Your task to perform on an android device: check out phone information Image 0: 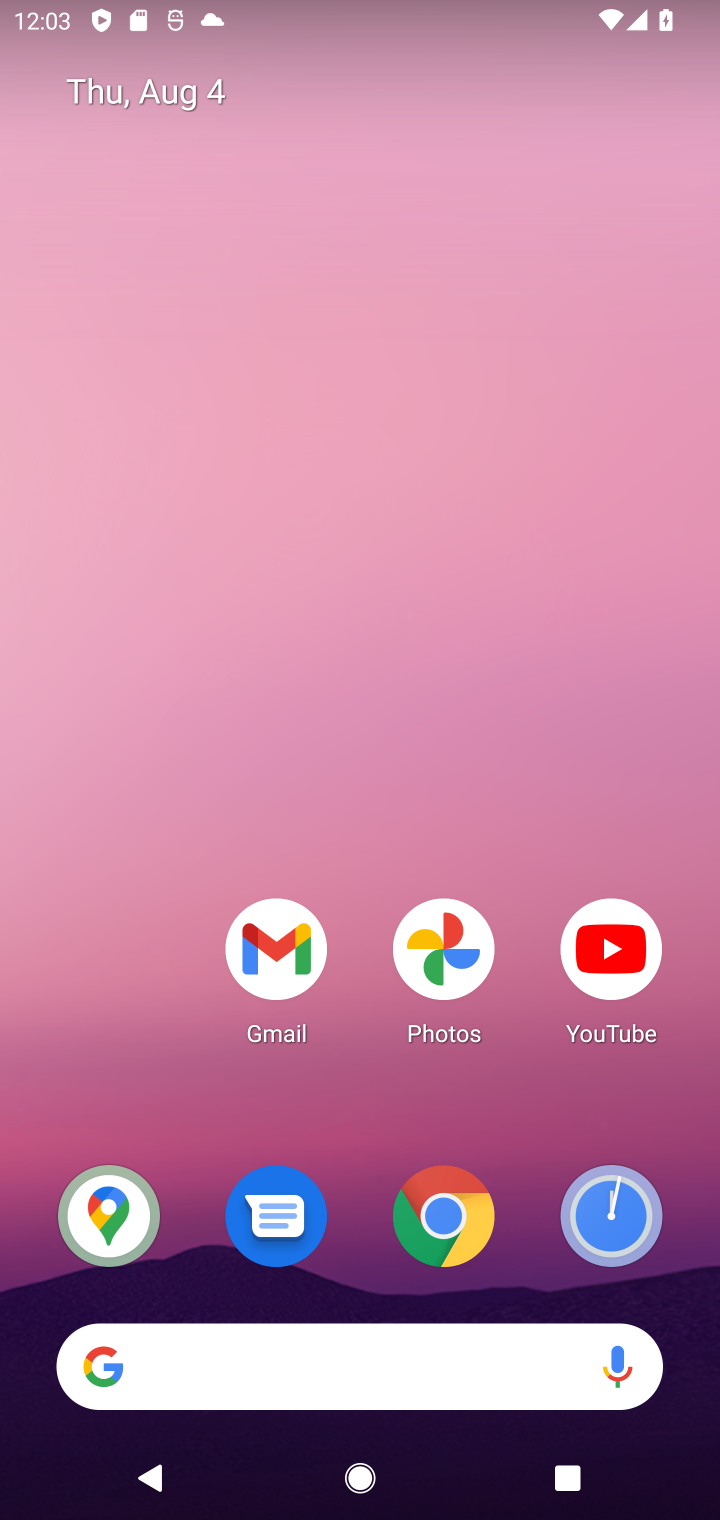
Step 0: drag from (291, 1378) to (447, 224)
Your task to perform on an android device: check out phone information Image 1: 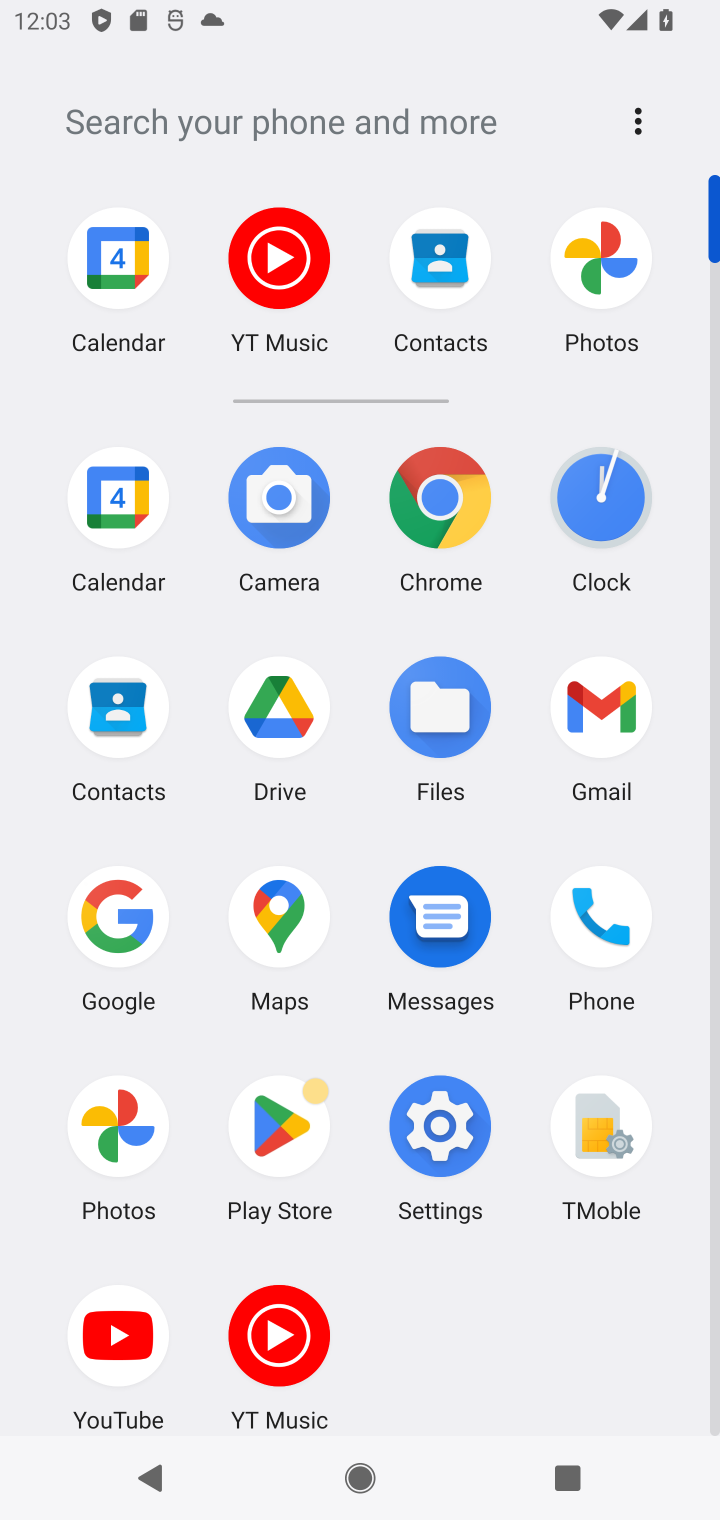
Step 1: click (435, 1123)
Your task to perform on an android device: check out phone information Image 2: 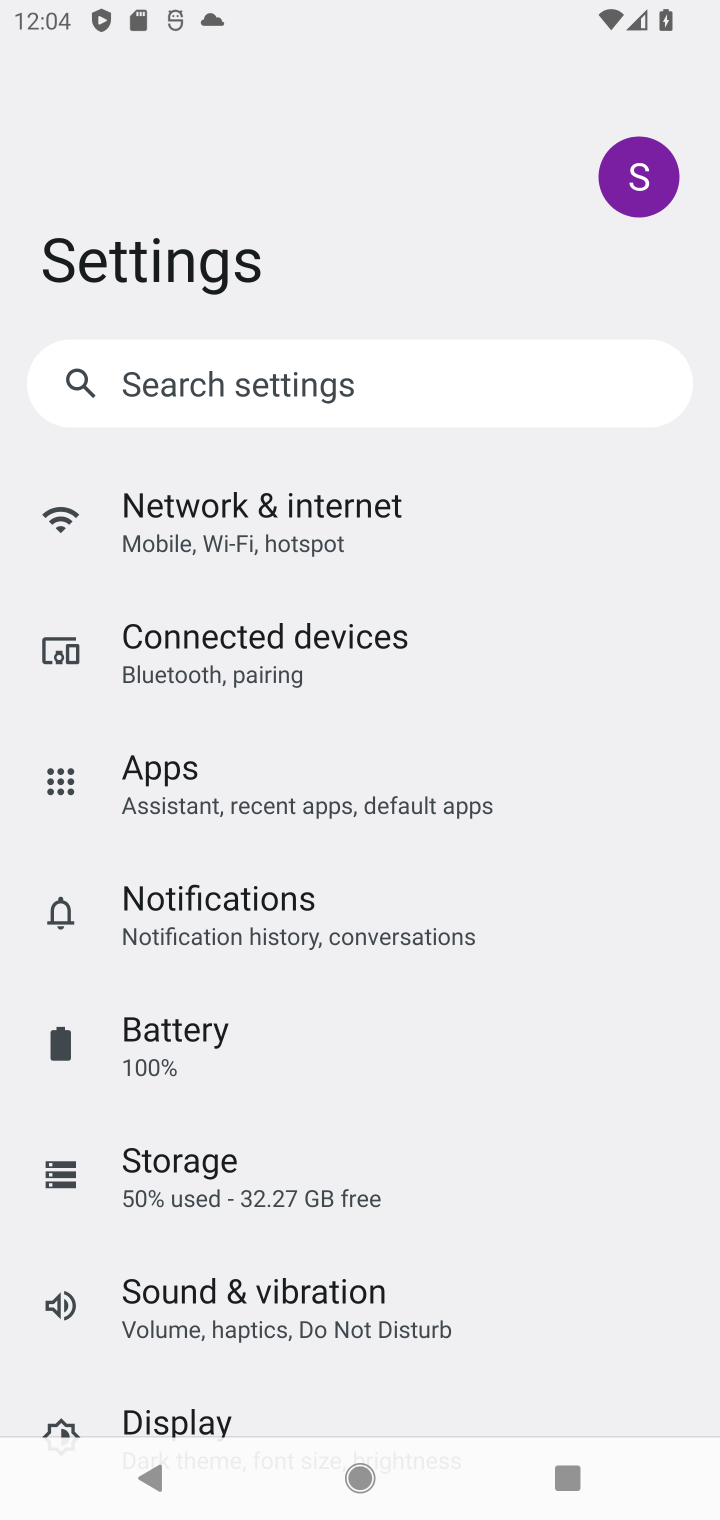
Step 2: drag from (382, 1245) to (377, 639)
Your task to perform on an android device: check out phone information Image 3: 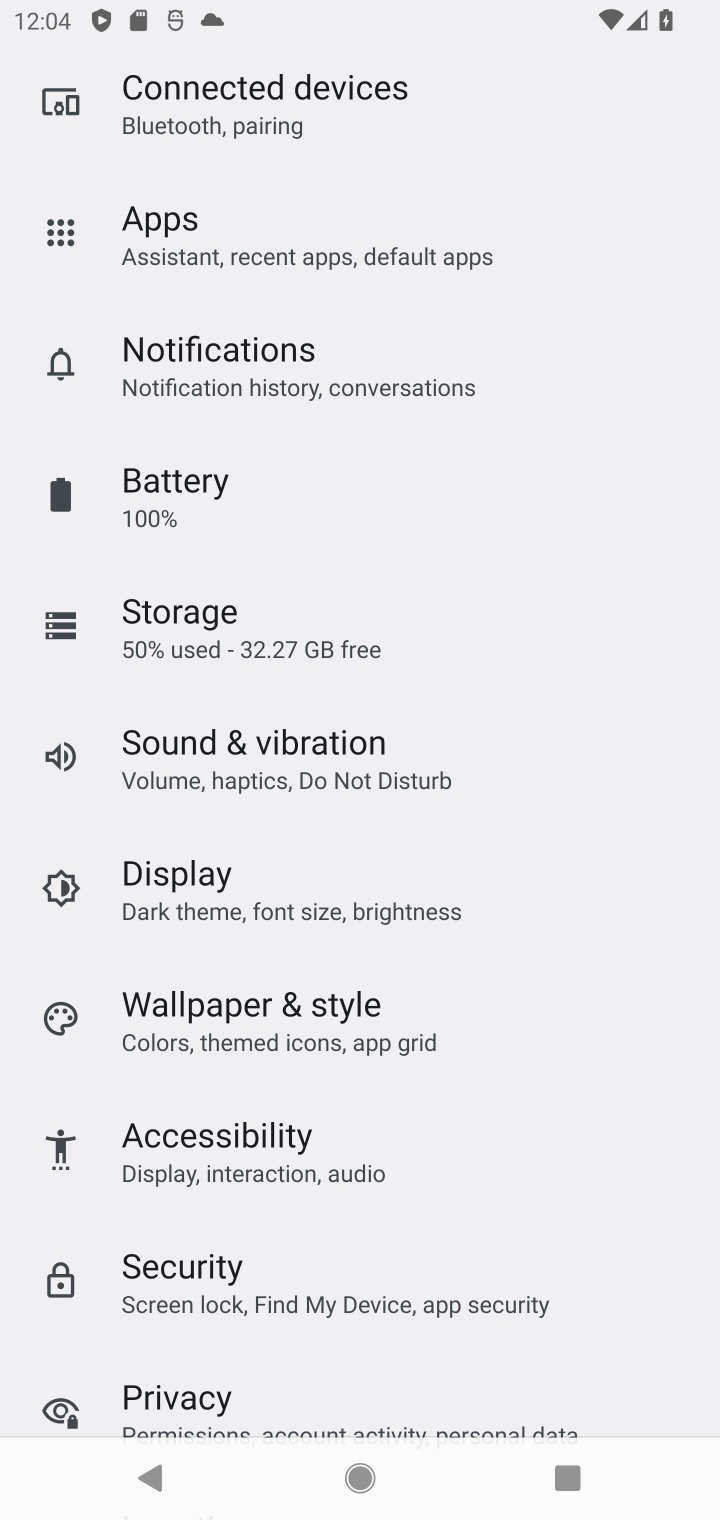
Step 3: drag from (319, 1133) to (537, 773)
Your task to perform on an android device: check out phone information Image 4: 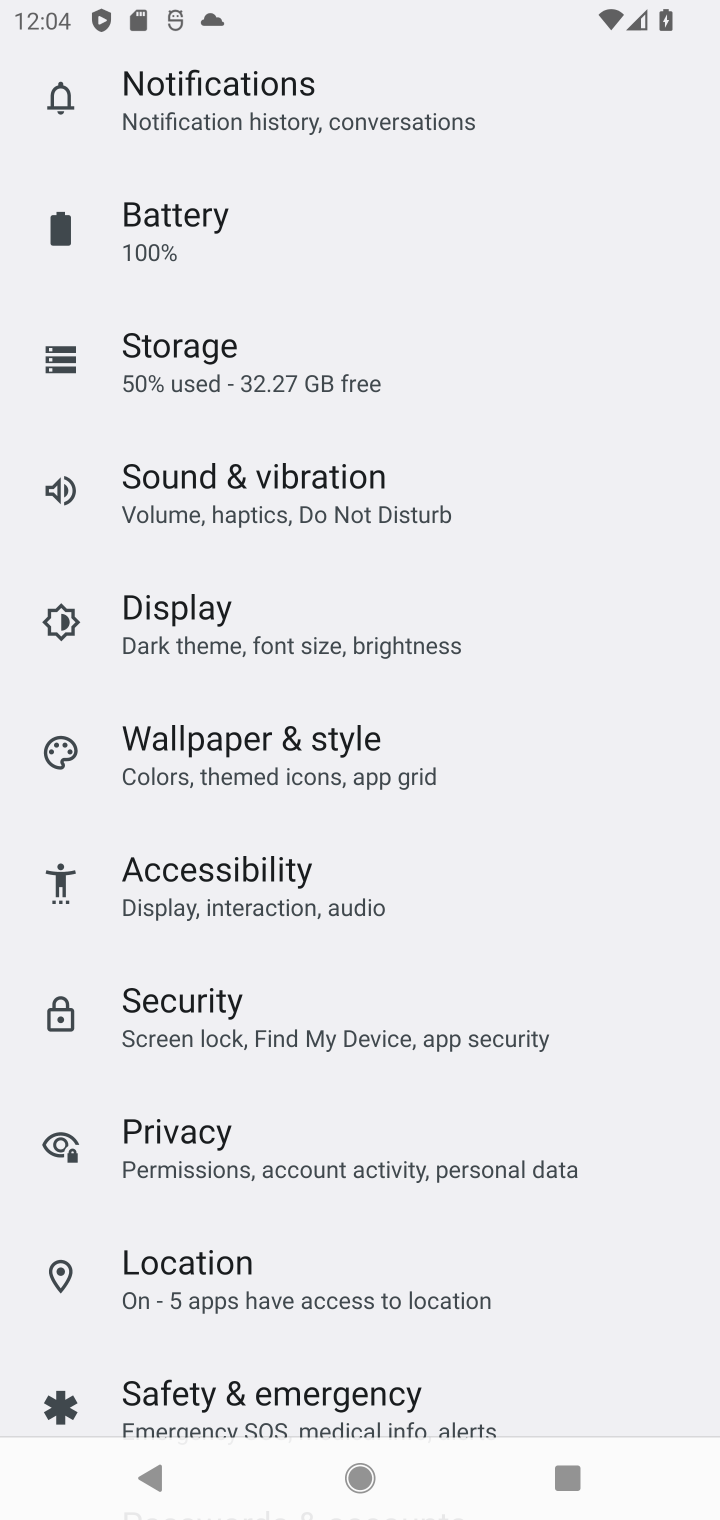
Step 4: drag from (259, 1082) to (381, 814)
Your task to perform on an android device: check out phone information Image 5: 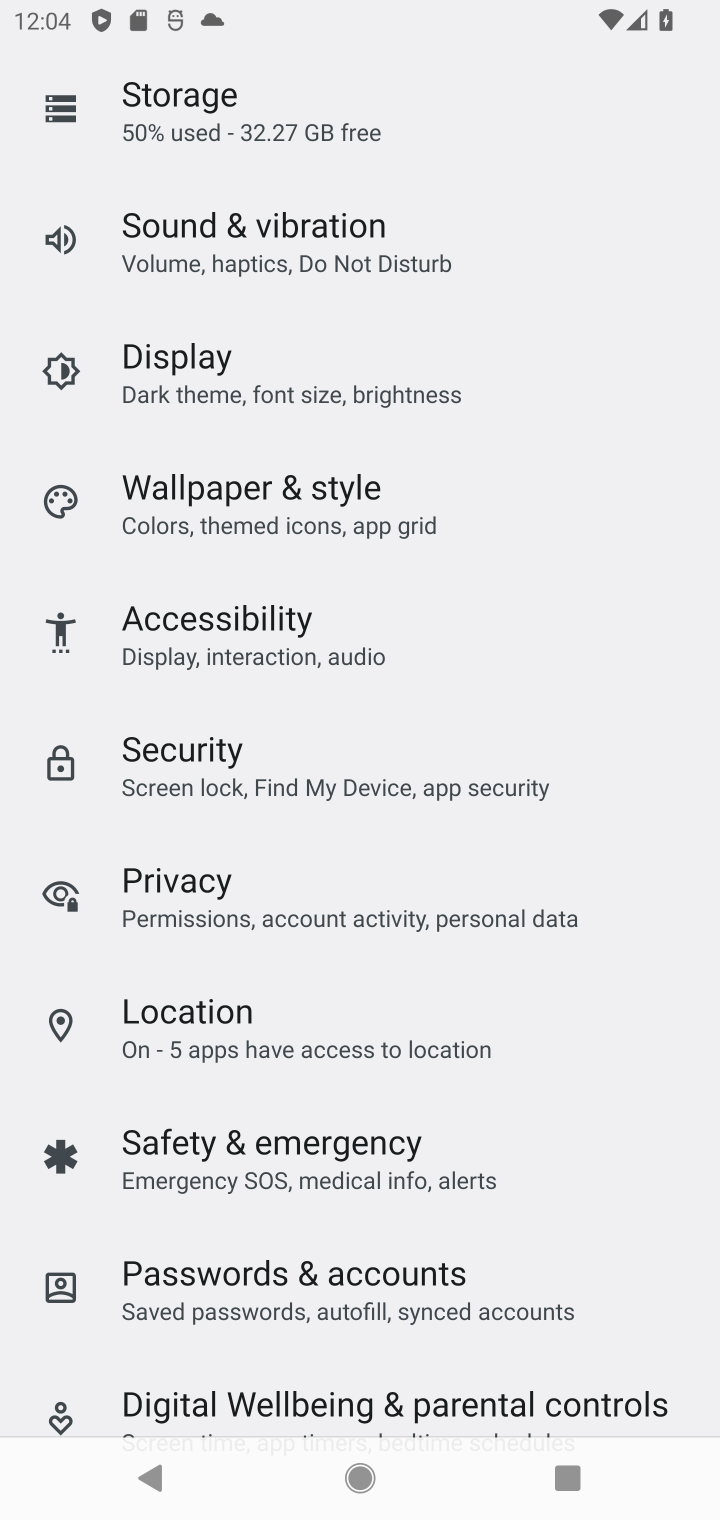
Step 5: drag from (214, 1087) to (337, 820)
Your task to perform on an android device: check out phone information Image 6: 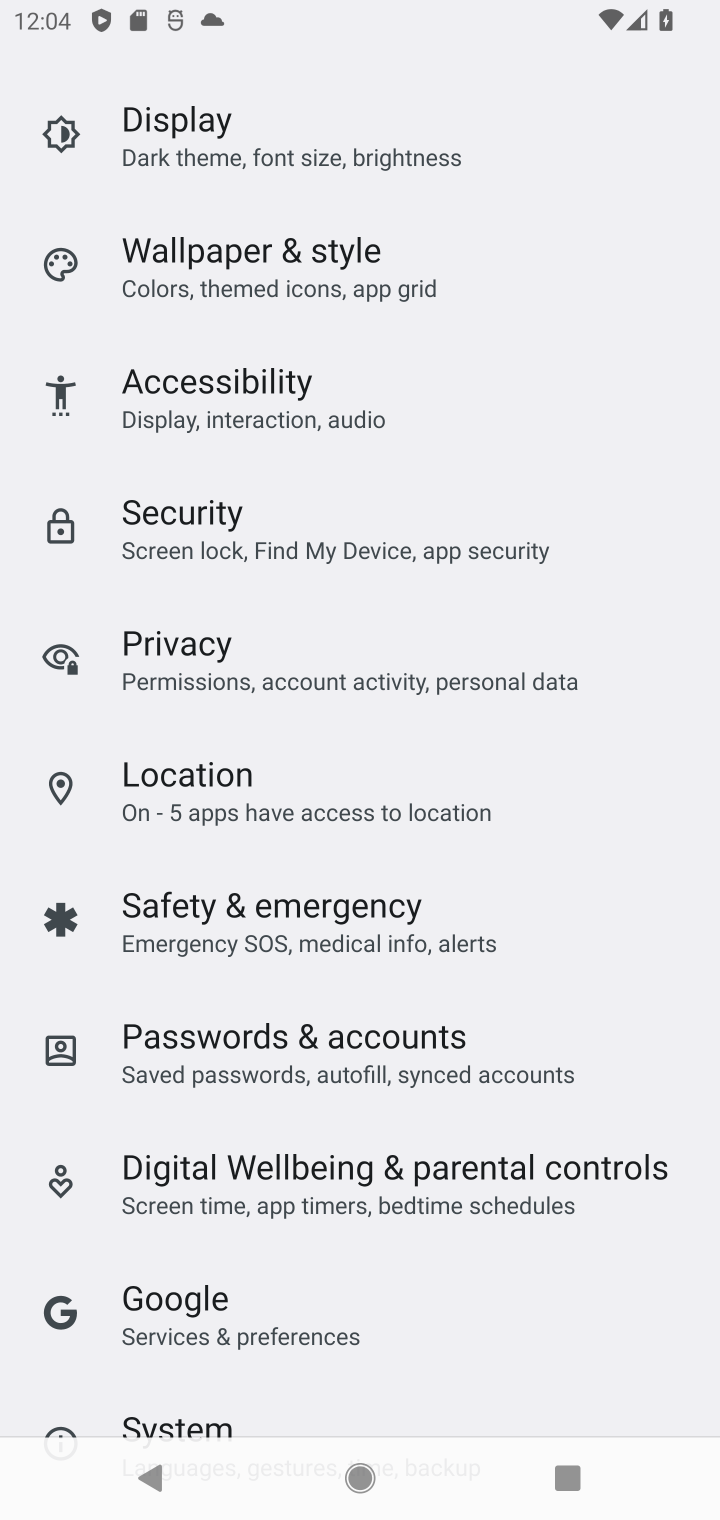
Step 6: drag from (156, 1001) to (339, 674)
Your task to perform on an android device: check out phone information Image 7: 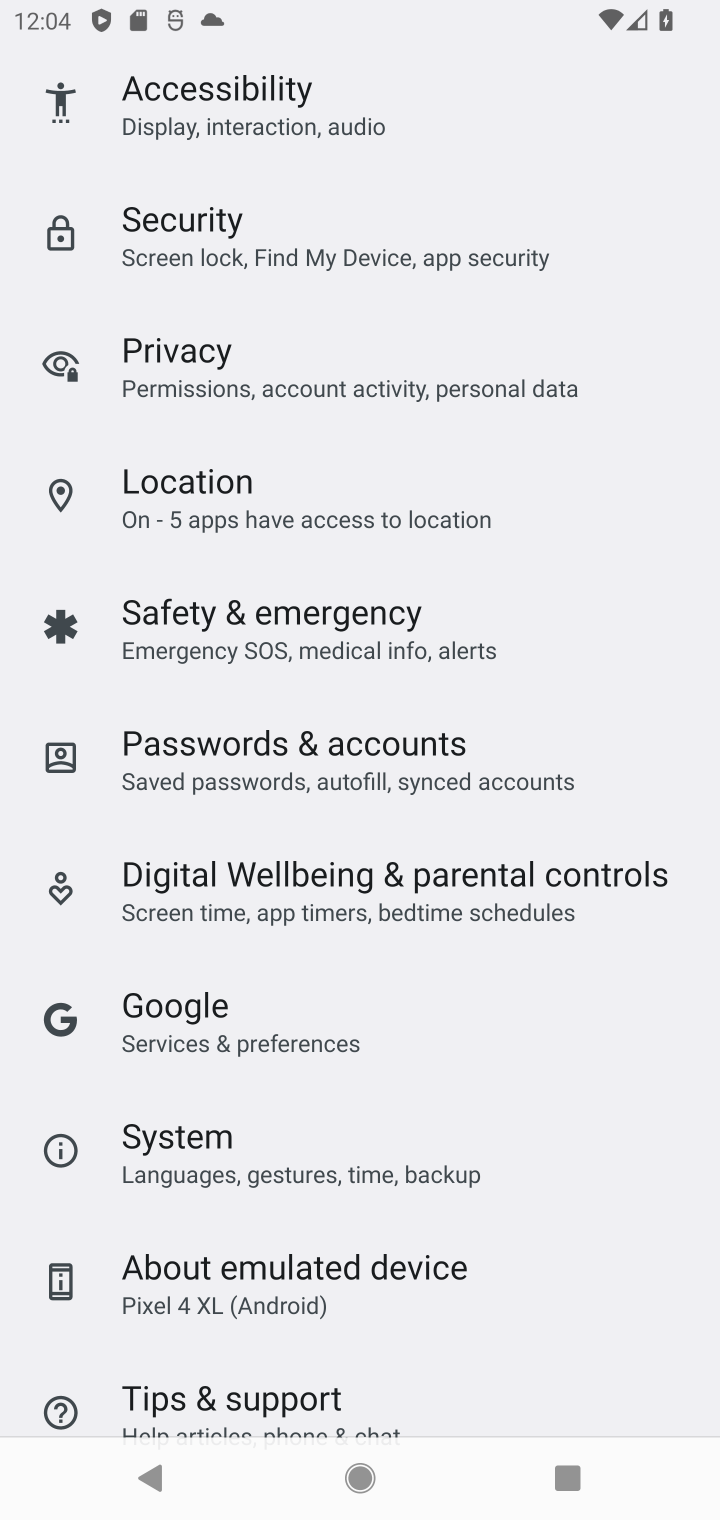
Step 7: drag from (180, 828) to (309, 612)
Your task to perform on an android device: check out phone information Image 8: 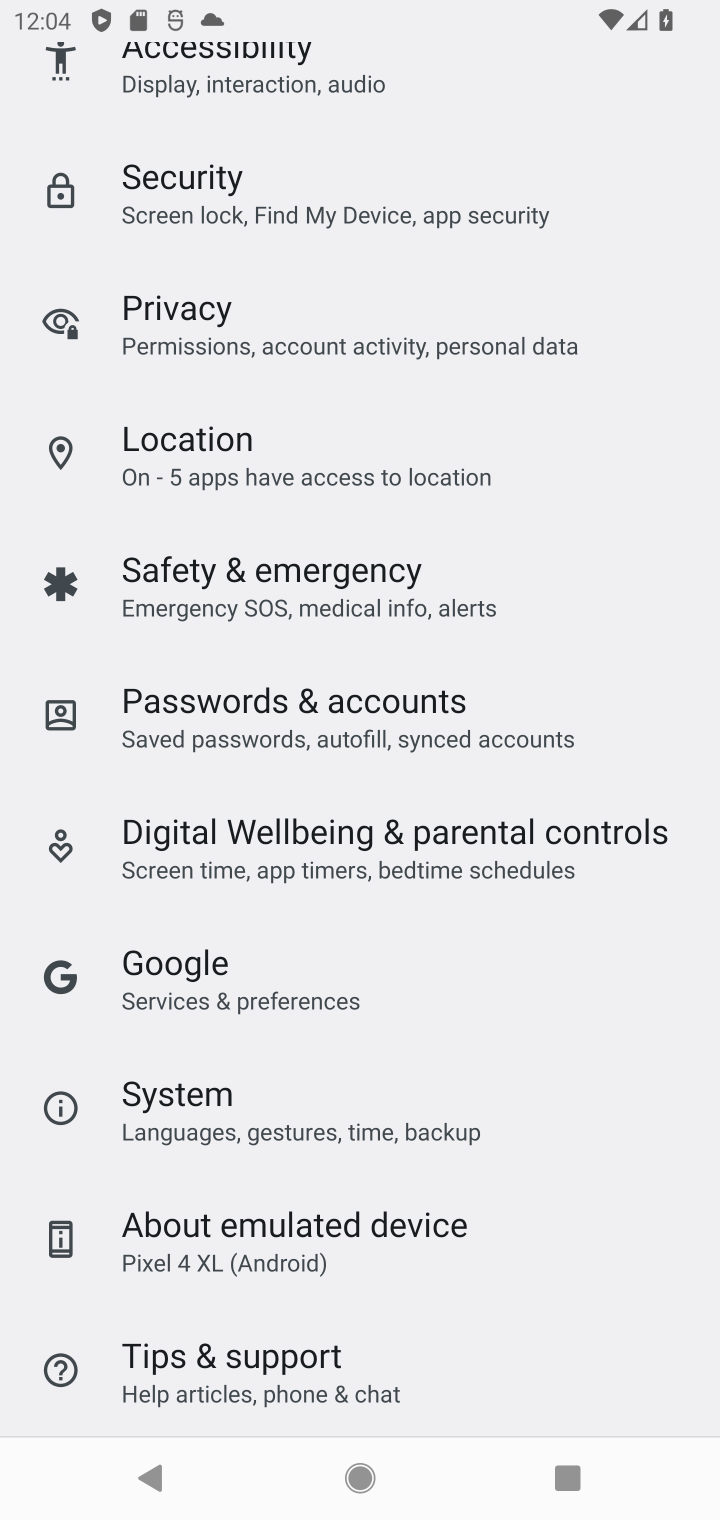
Step 8: drag from (249, 943) to (343, 516)
Your task to perform on an android device: check out phone information Image 9: 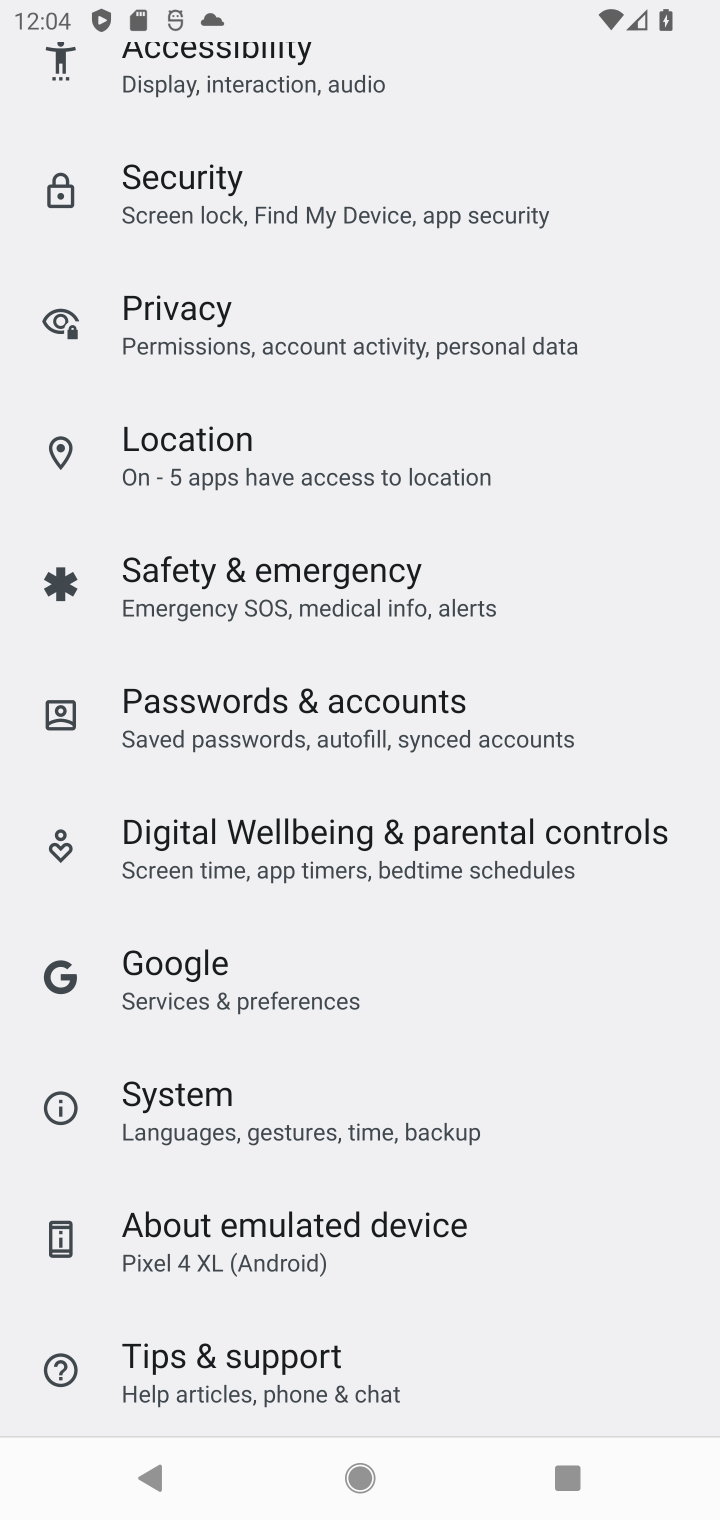
Step 9: drag from (319, 956) to (437, 724)
Your task to perform on an android device: check out phone information Image 10: 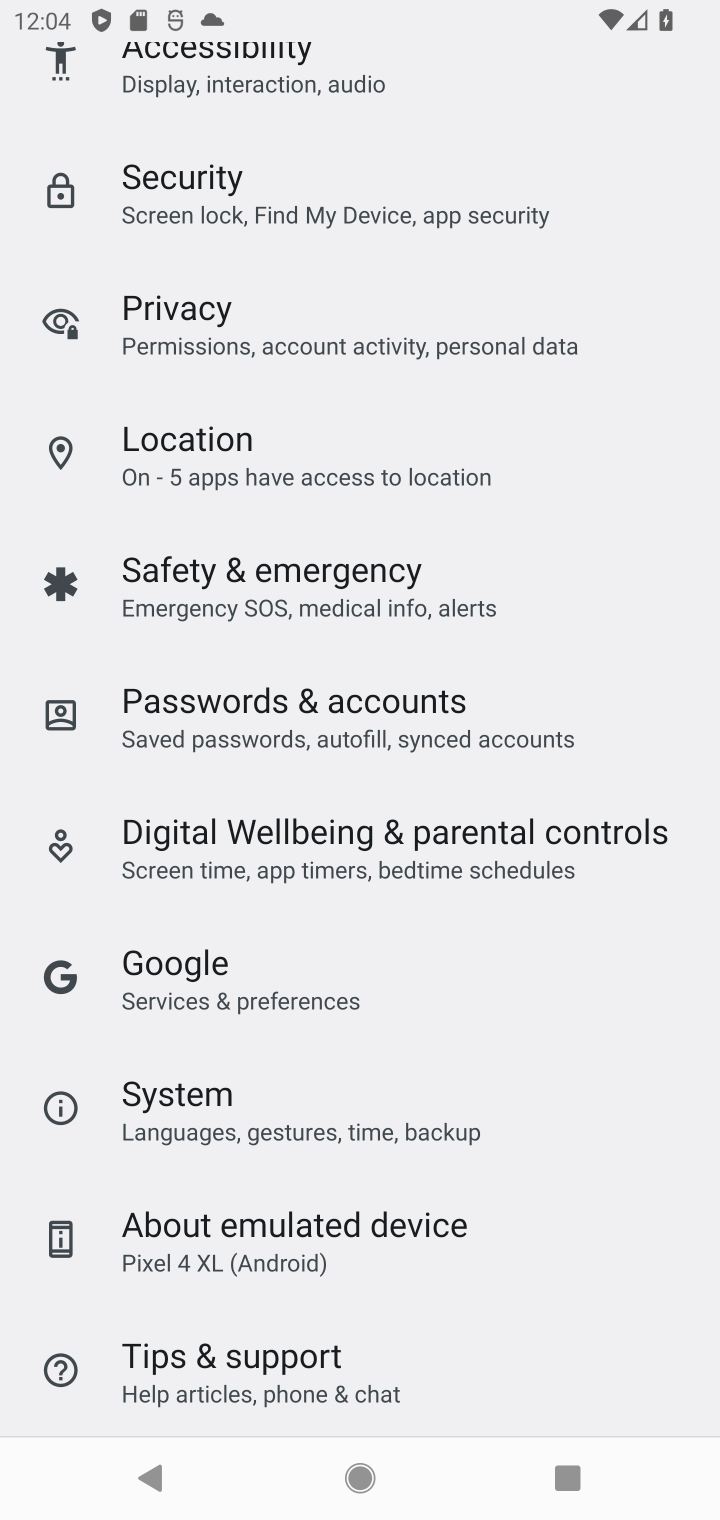
Step 10: click (340, 1250)
Your task to perform on an android device: check out phone information Image 11: 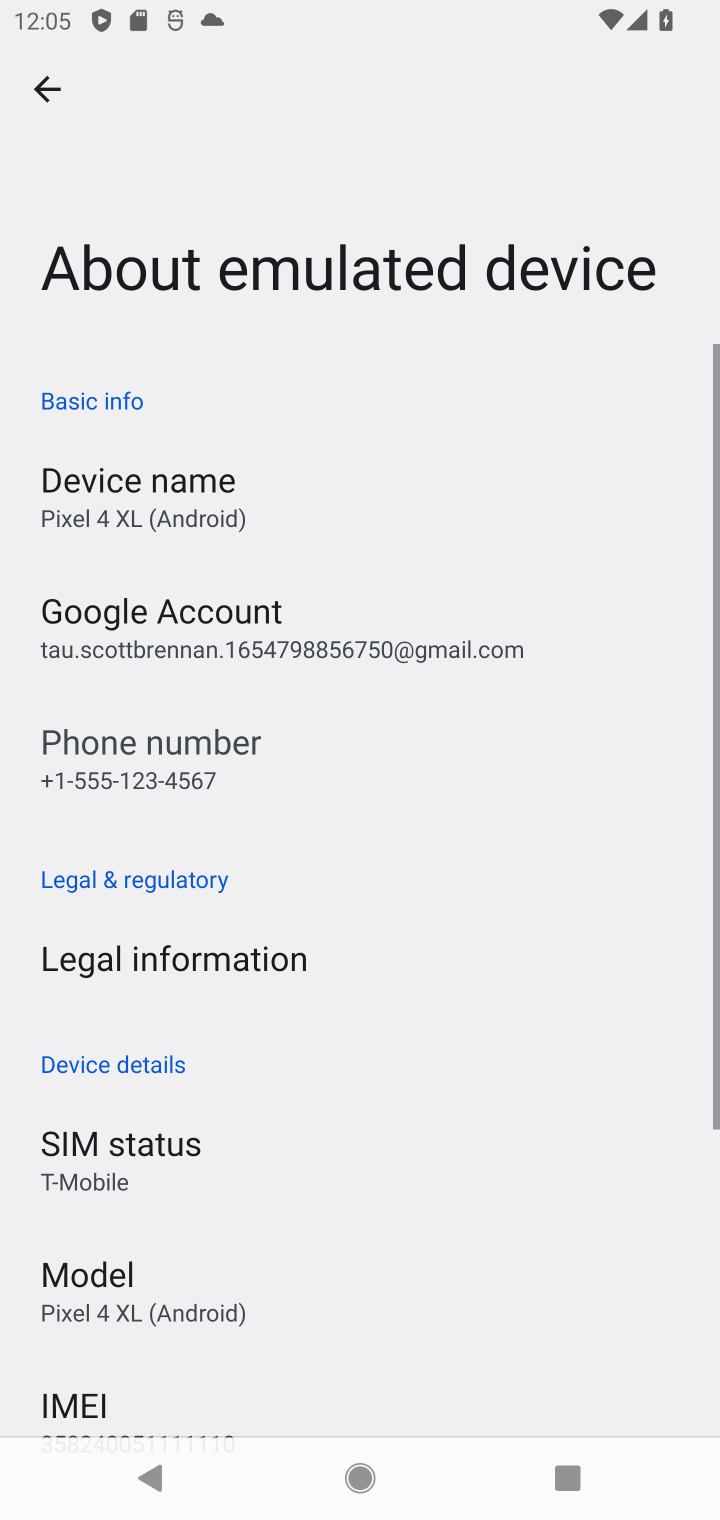
Step 11: task complete